Your task to perform on an android device: allow cookies in the chrome app Image 0: 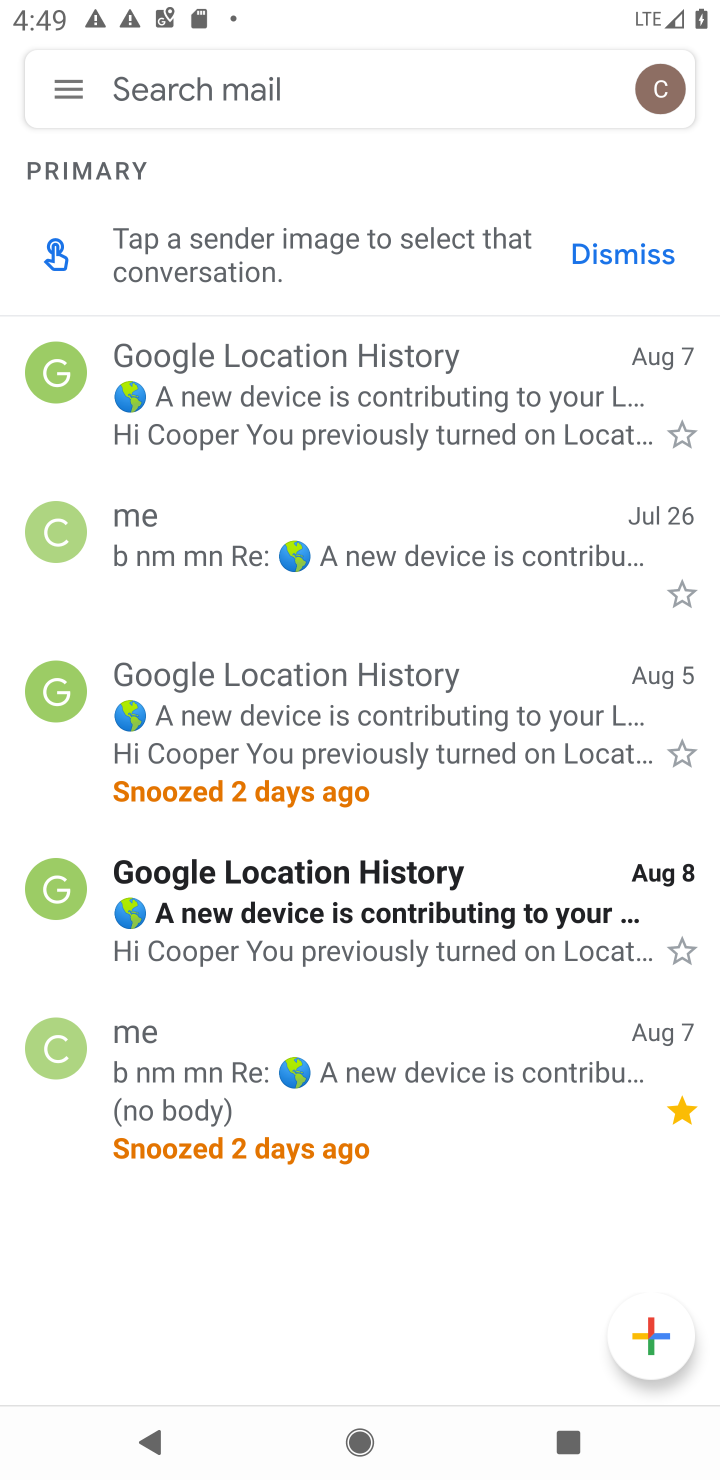
Step 0: press home button
Your task to perform on an android device: allow cookies in the chrome app Image 1: 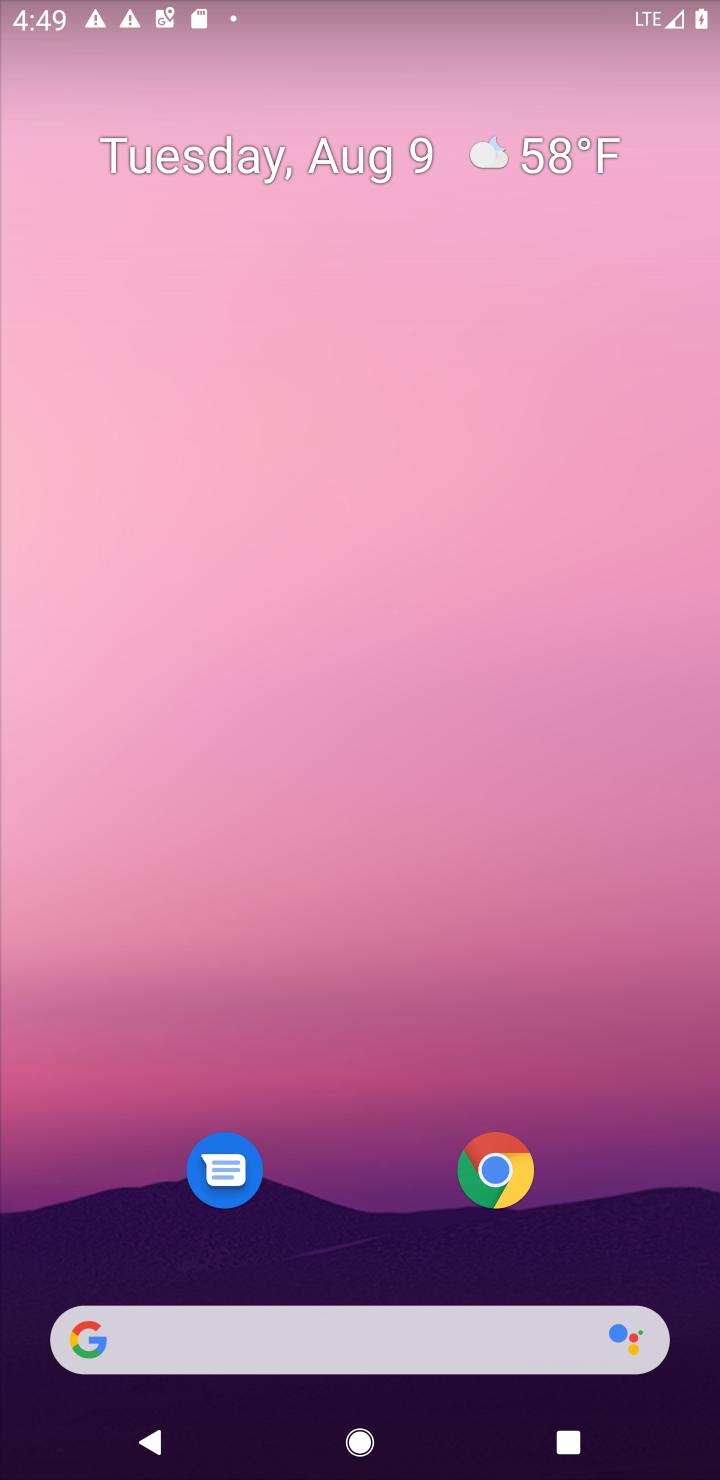
Step 1: click (496, 1182)
Your task to perform on an android device: allow cookies in the chrome app Image 2: 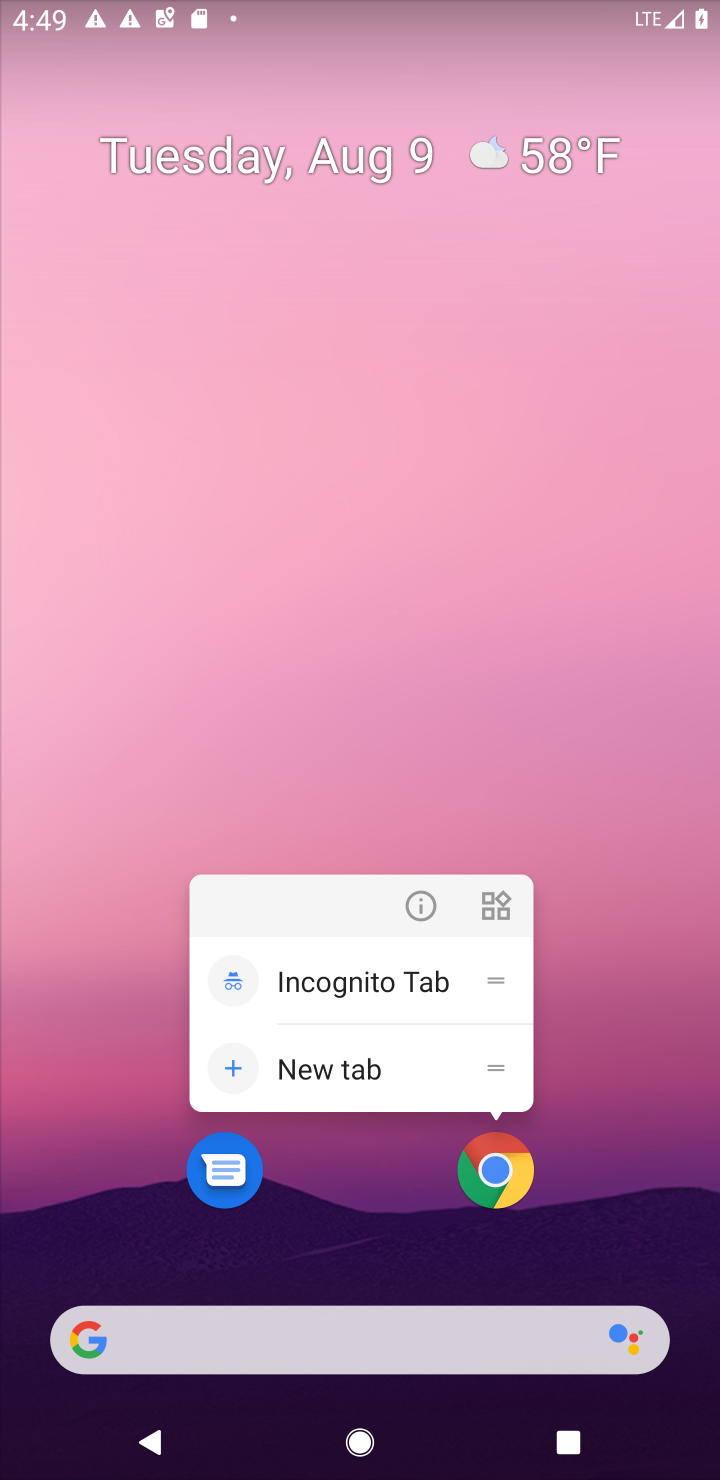
Step 2: click (496, 1182)
Your task to perform on an android device: allow cookies in the chrome app Image 3: 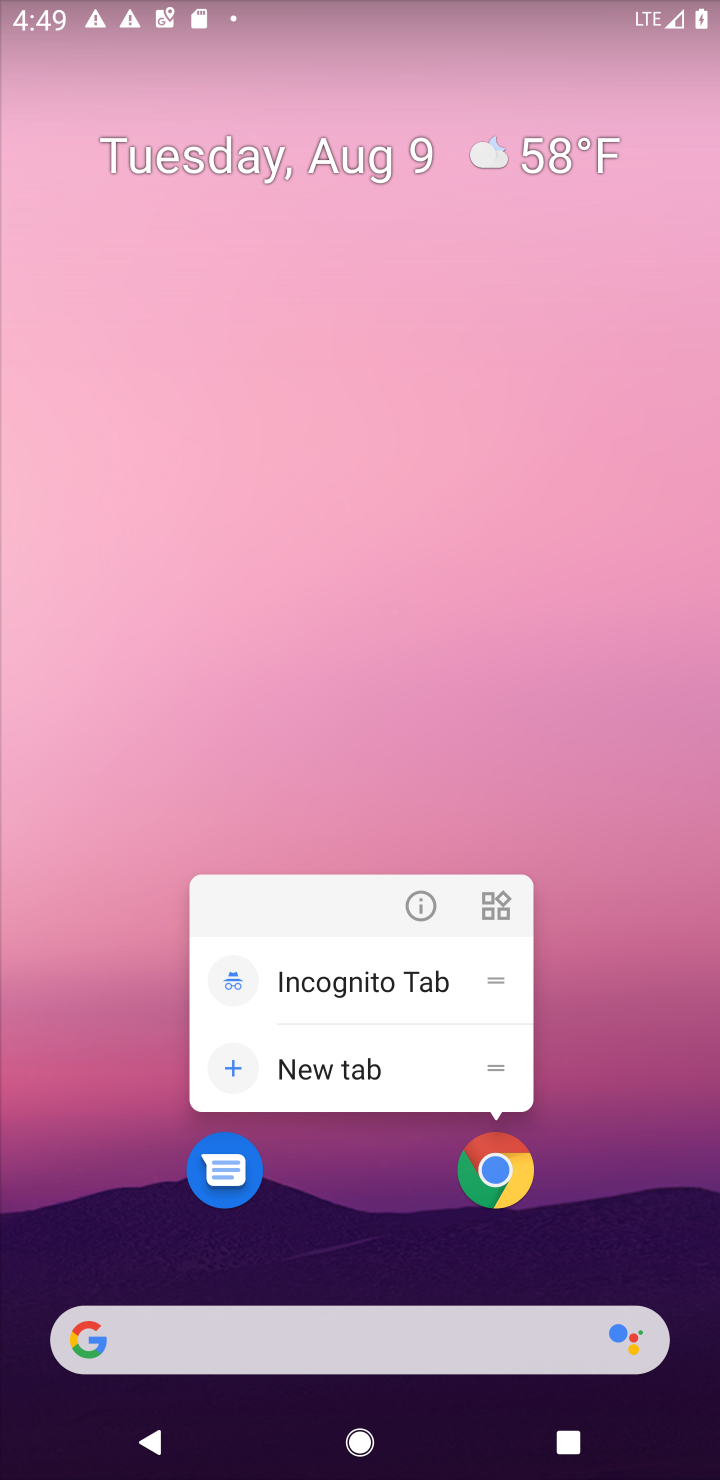
Step 3: click (497, 1182)
Your task to perform on an android device: allow cookies in the chrome app Image 4: 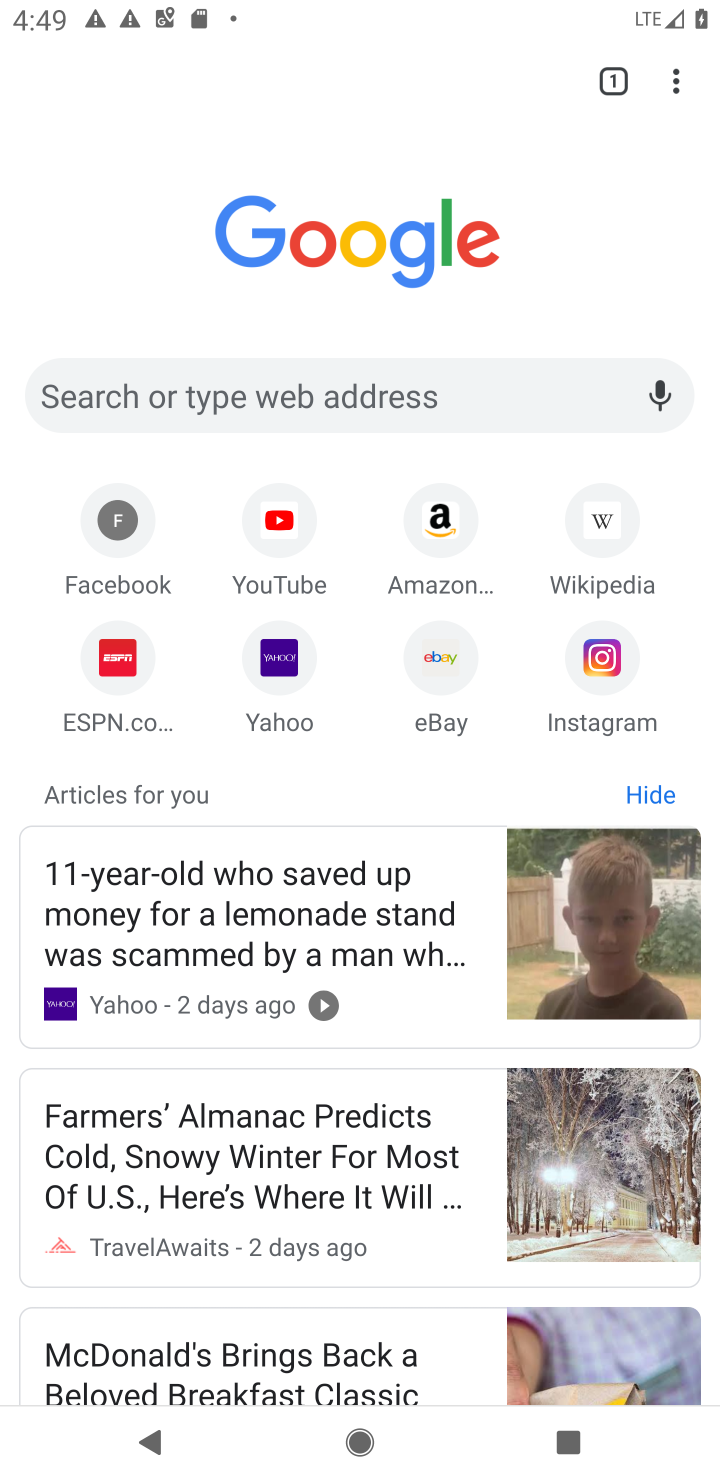
Step 4: drag from (680, 92) to (409, 691)
Your task to perform on an android device: allow cookies in the chrome app Image 5: 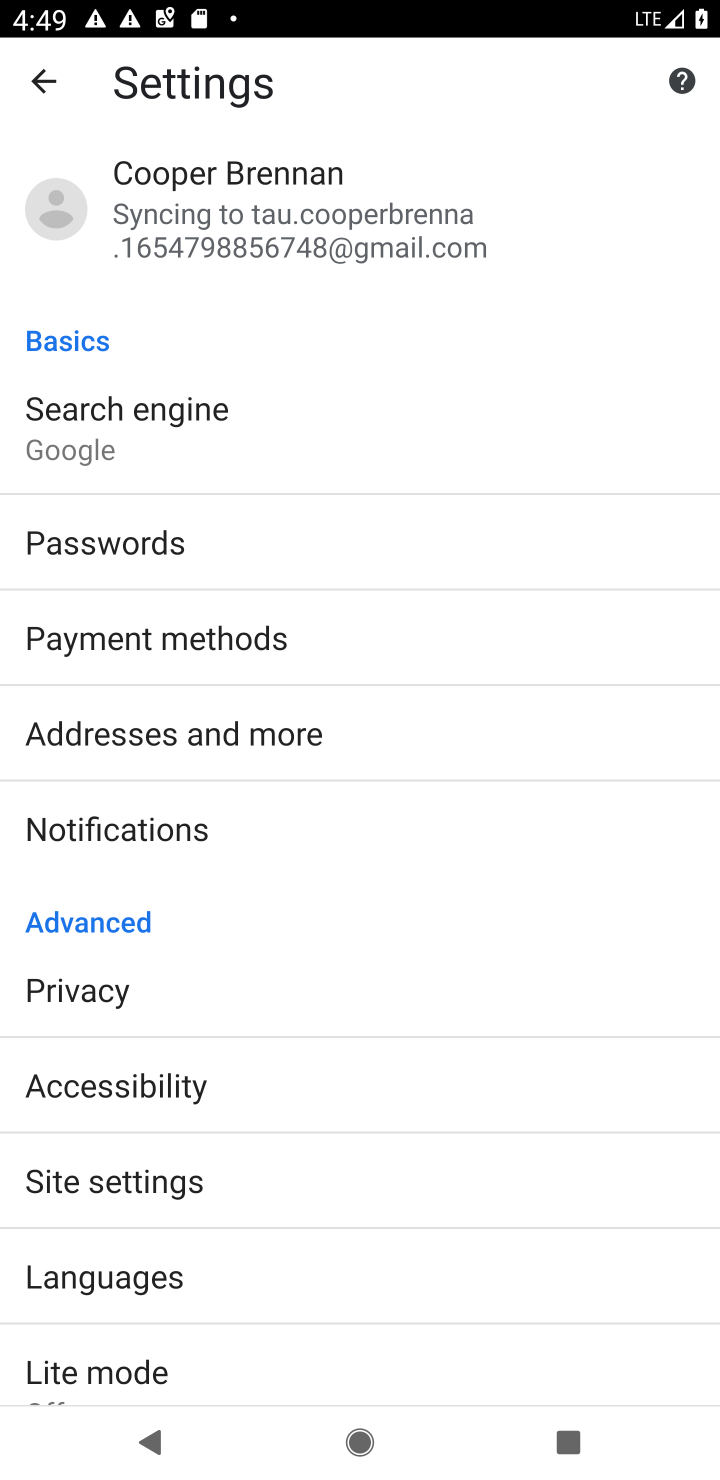
Step 5: click (132, 1190)
Your task to perform on an android device: allow cookies in the chrome app Image 6: 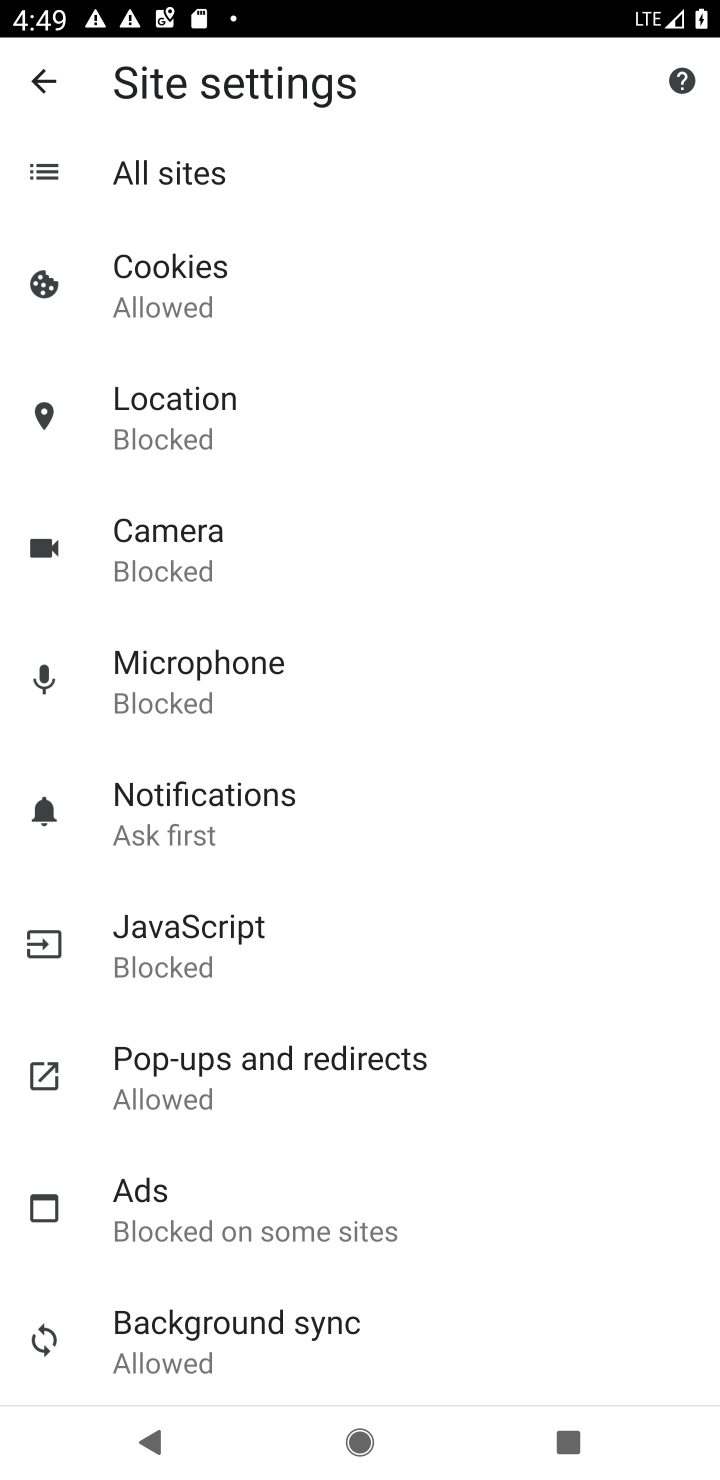
Step 6: click (193, 302)
Your task to perform on an android device: allow cookies in the chrome app Image 7: 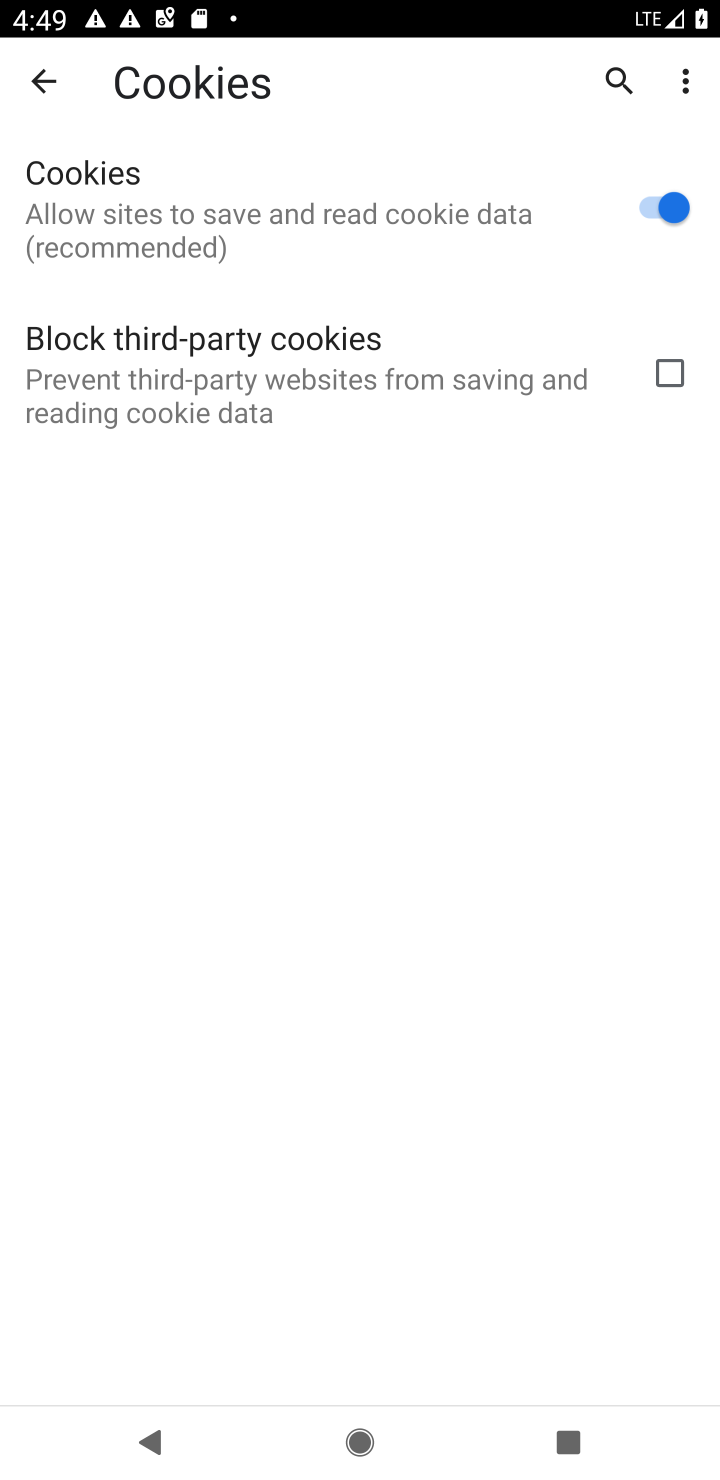
Step 7: task complete